Your task to perform on an android device: Go to Yahoo.com Image 0: 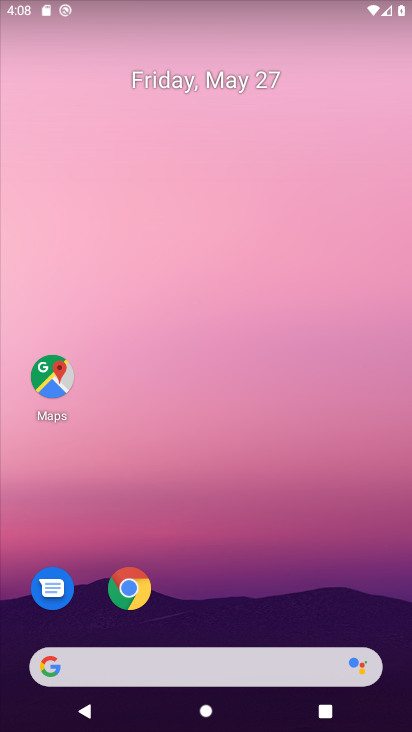
Step 0: click (133, 585)
Your task to perform on an android device: Go to Yahoo.com Image 1: 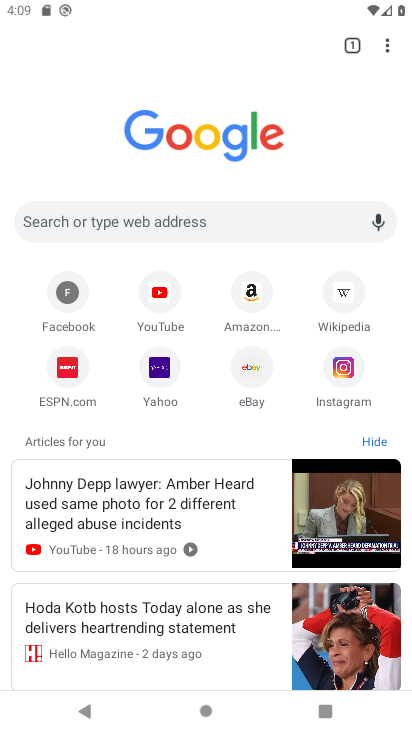
Step 1: click (170, 379)
Your task to perform on an android device: Go to Yahoo.com Image 2: 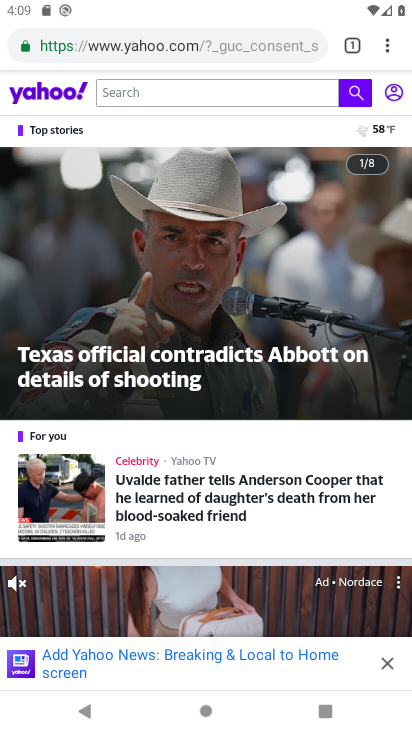
Step 2: task complete